Your task to perform on an android device: allow notifications from all sites in the chrome app Image 0: 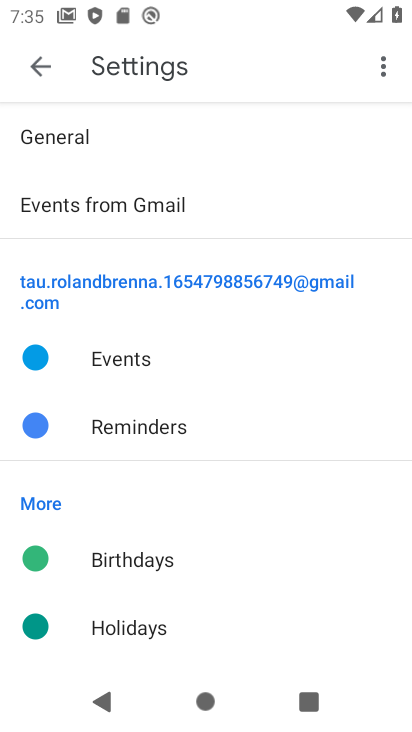
Step 0: press home button
Your task to perform on an android device: allow notifications from all sites in the chrome app Image 1: 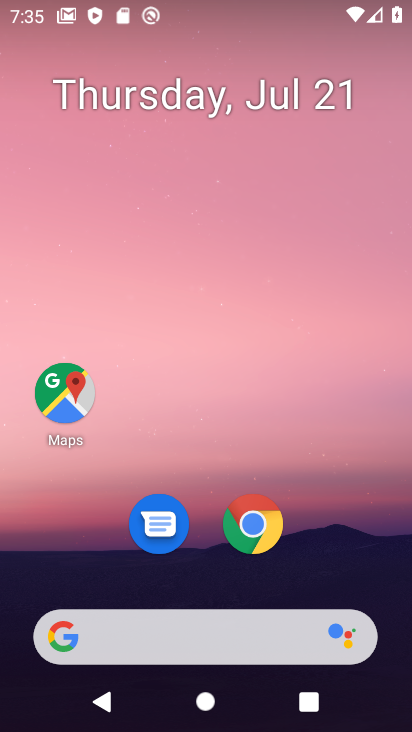
Step 1: click (251, 534)
Your task to perform on an android device: allow notifications from all sites in the chrome app Image 2: 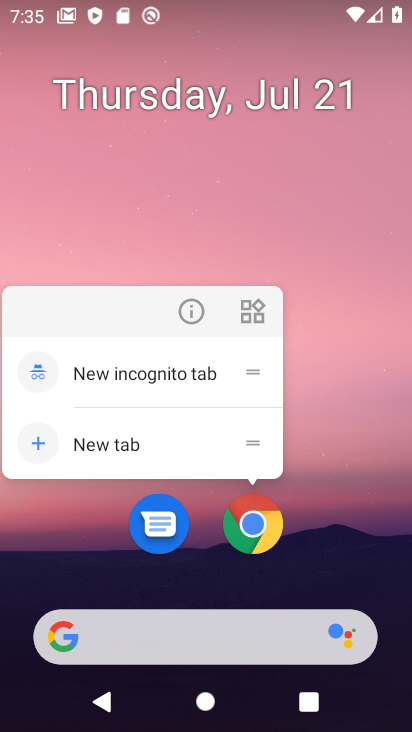
Step 2: click (256, 529)
Your task to perform on an android device: allow notifications from all sites in the chrome app Image 3: 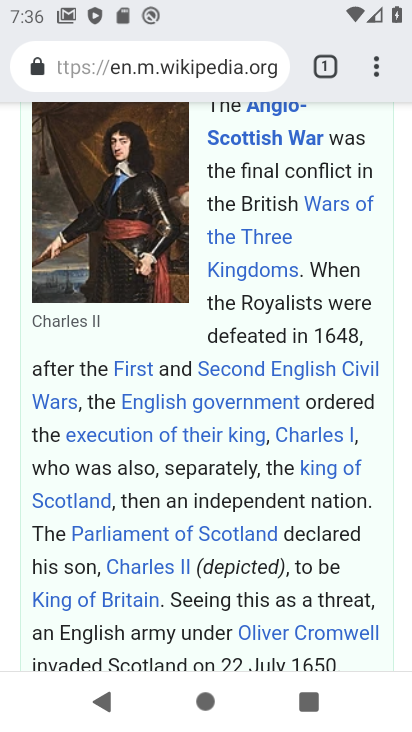
Step 3: drag from (377, 68) to (206, 527)
Your task to perform on an android device: allow notifications from all sites in the chrome app Image 4: 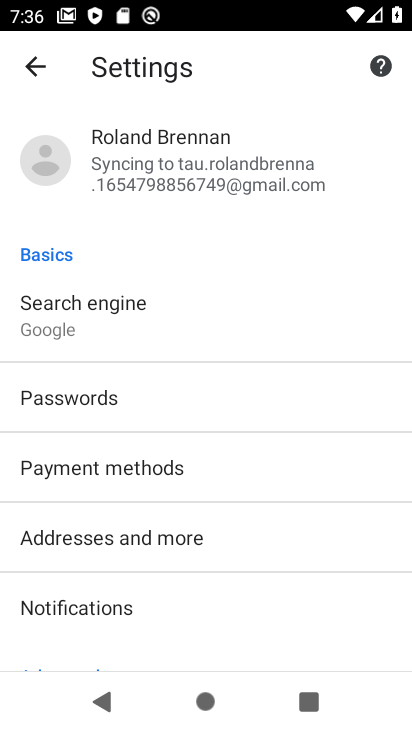
Step 4: drag from (170, 605) to (264, 318)
Your task to perform on an android device: allow notifications from all sites in the chrome app Image 5: 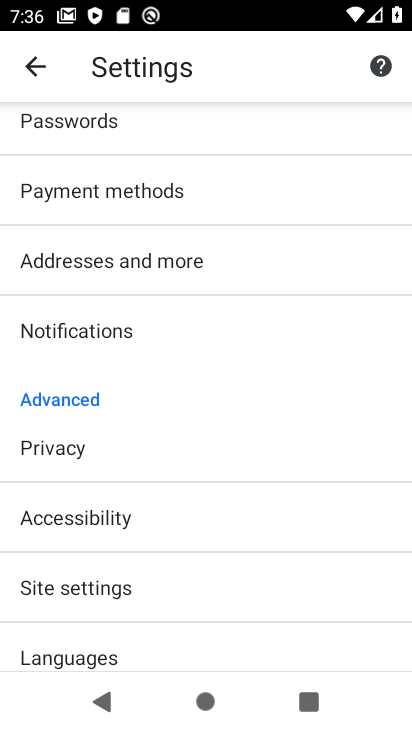
Step 5: click (126, 582)
Your task to perform on an android device: allow notifications from all sites in the chrome app Image 6: 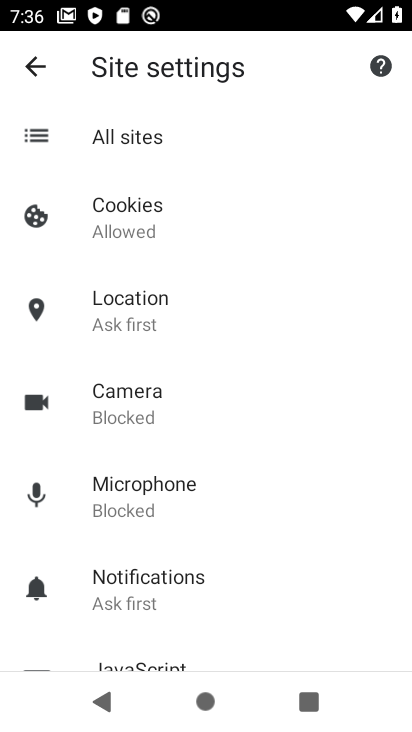
Step 6: click (152, 578)
Your task to perform on an android device: allow notifications from all sites in the chrome app Image 7: 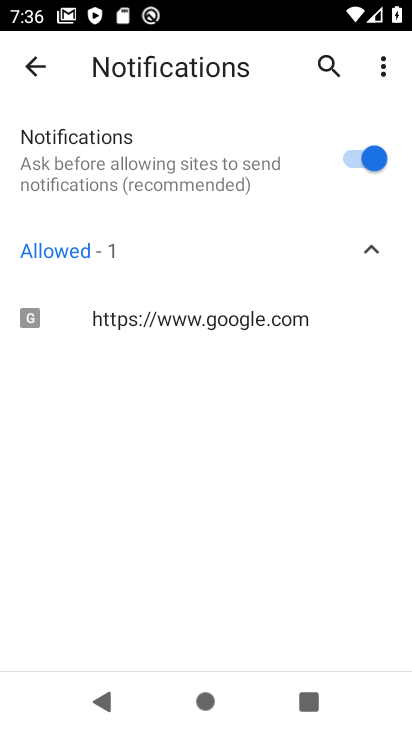
Step 7: task complete